Your task to perform on an android device: toggle javascript in the chrome app Image 0: 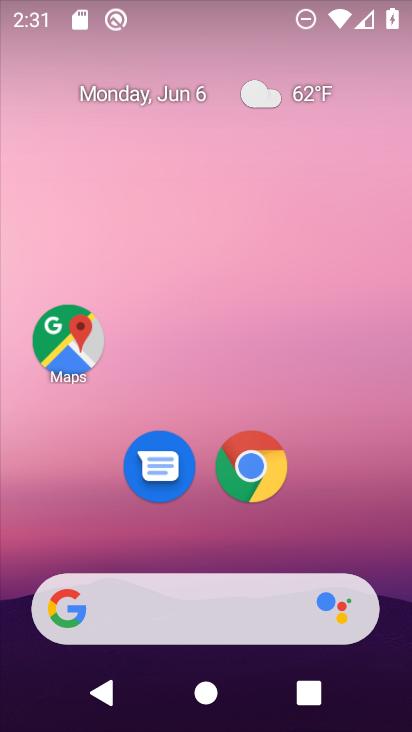
Step 0: click (244, 471)
Your task to perform on an android device: toggle javascript in the chrome app Image 1: 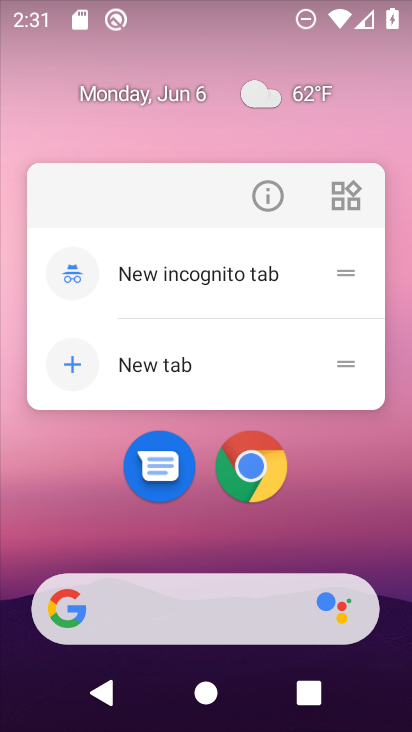
Step 1: click (250, 483)
Your task to perform on an android device: toggle javascript in the chrome app Image 2: 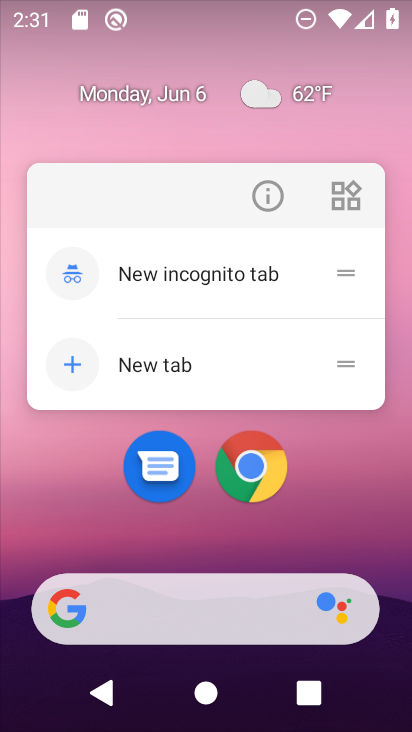
Step 2: click (257, 476)
Your task to perform on an android device: toggle javascript in the chrome app Image 3: 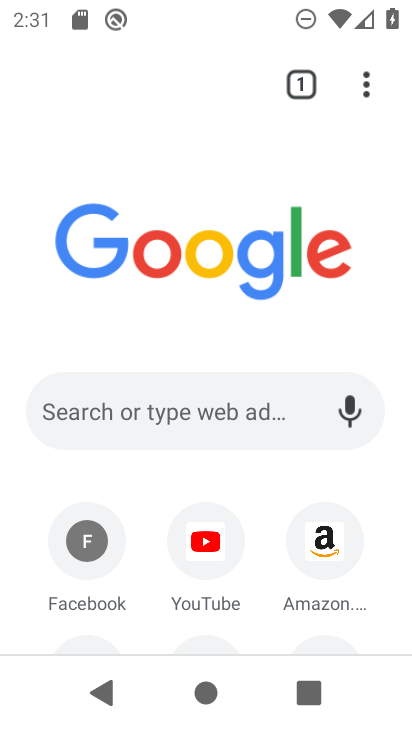
Step 3: click (369, 90)
Your task to perform on an android device: toggle javascript in the chrome app Image 4: 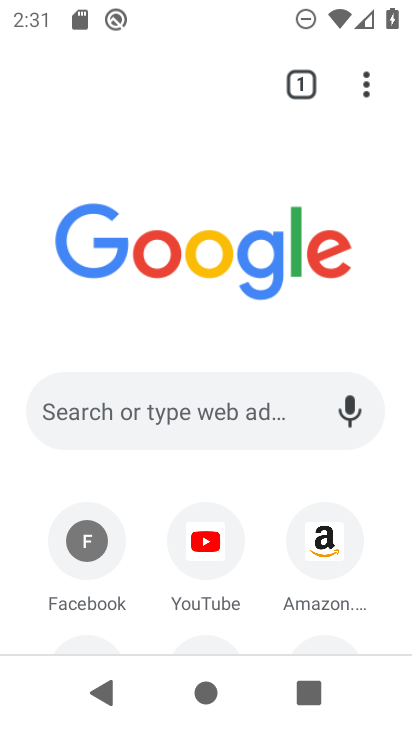
Step 4: click (366, 86)
Your task to perform on an android device: toggle javascript in the chrome app Image 5: 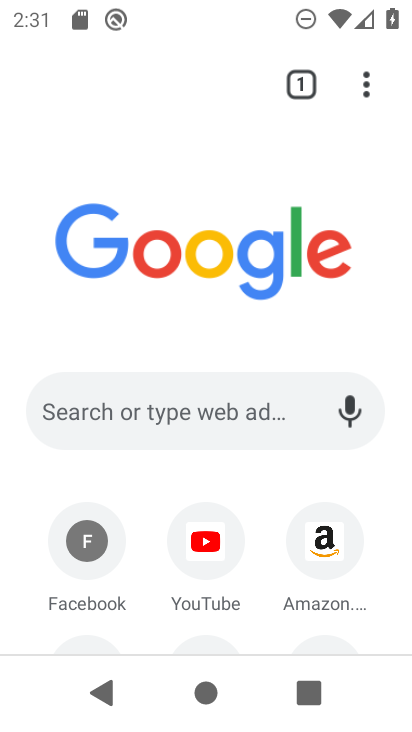
Step 5: click (369, 87)
Your task to perform on an android device: toggle javascript in the chrome app Image 6: 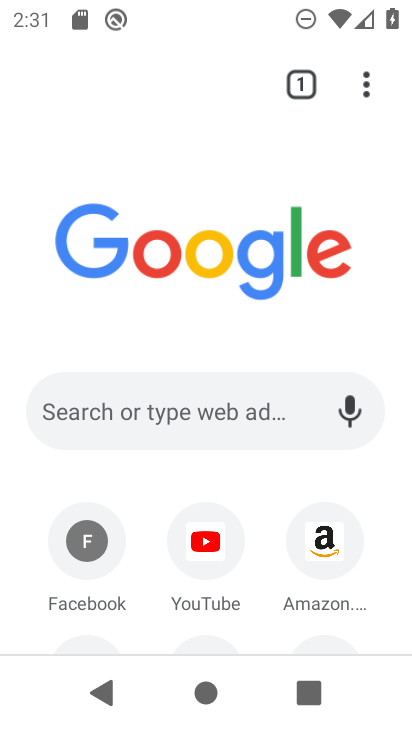
Step 6: click (368, 85)
Your task to perform on an android device: toggle javascript in the chrome app Image 7: 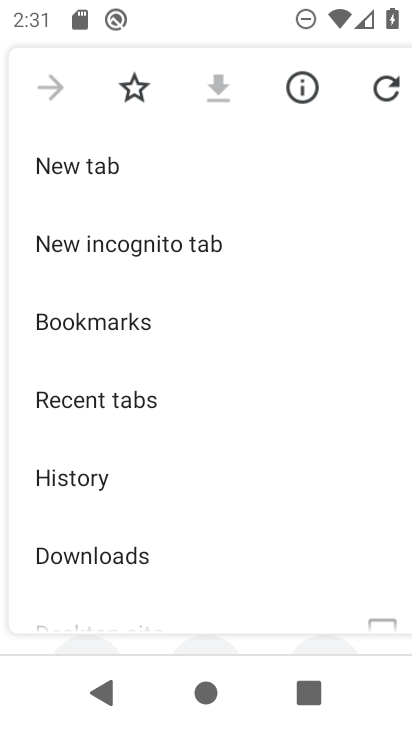
Step 7: drag from (145, 515) to (132, 162)
Your task to perform on an android device: toggle javascript in the chrome app Image 8: 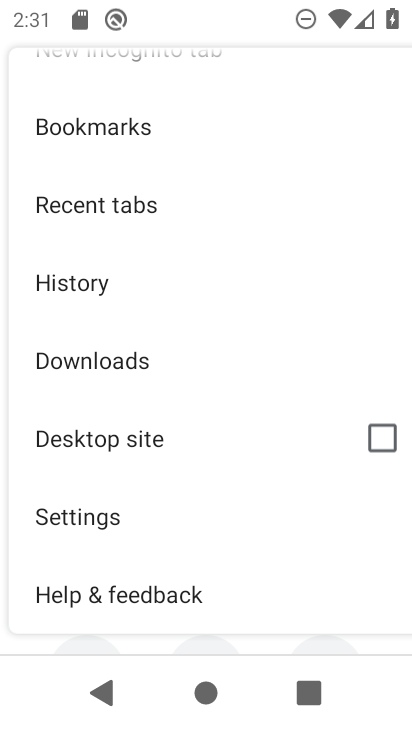
Step 8: click (72, 517)
Your task to perform on an android device: toggle javascript in the chrome app Image 9: 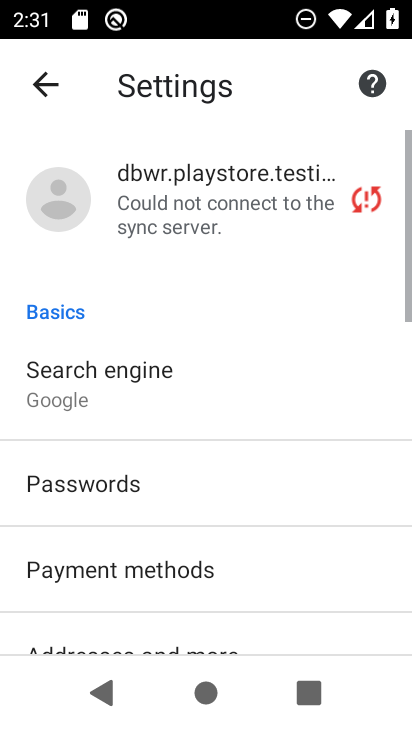
Step 9: drag from (160, 588) to (165, 401)
Your task to perform on an android device: toggle javascript in the chrome app Image 10: 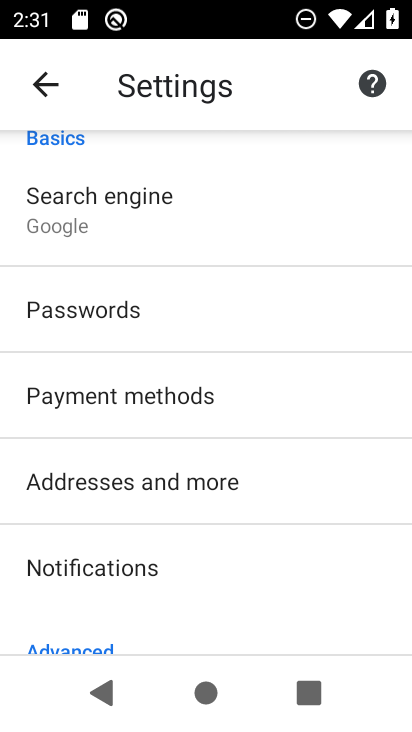
Step 10: drag from (186, 610) to (172, 395)
Your task to perform on an android device: toggle javascript in the chrome app Image 11: 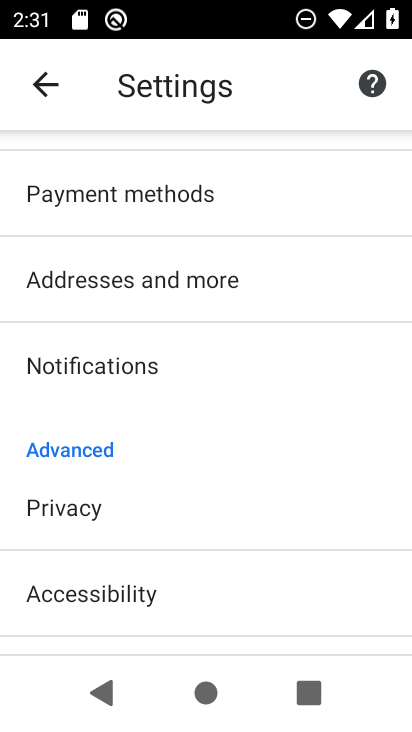
Step 11: drag from (166, 570) to (169, 320)
Your task to perform on an android device: toggle javascript in the chrome app Image 12: 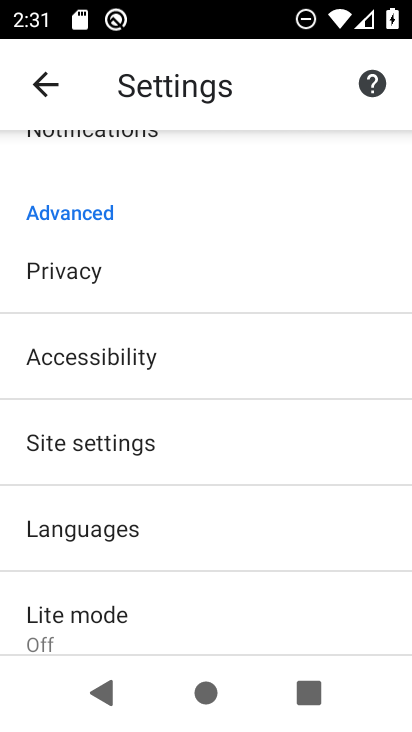
Step 12: click (116, 442)
Your task to perform on an android device: toggle javascript in the chrome app Image 13: 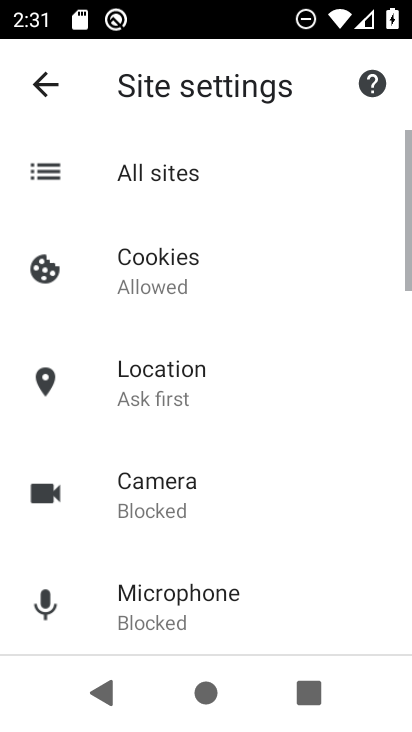
Step 13: drag from (177, 558) to (206, 321)
Your task to perform on an android device: toggle javascript in the chrome app Image 14: 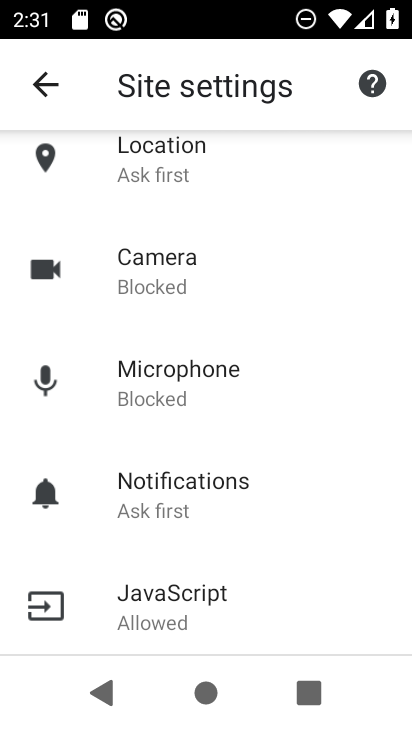
Step 14: drag from (221, 597) to (210, 342)
Your task to perform on an android device: toggle javascript in the chrome app Image 15: 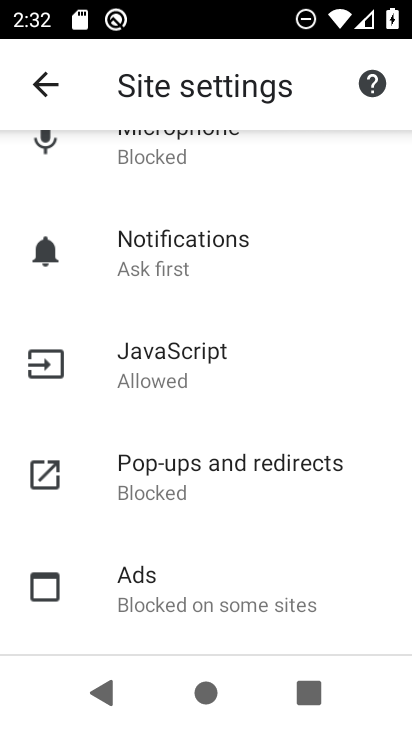
Step 15: click (189, 374)
Your task to perform on an android device: toggle javascript in the chrome app Image 16: 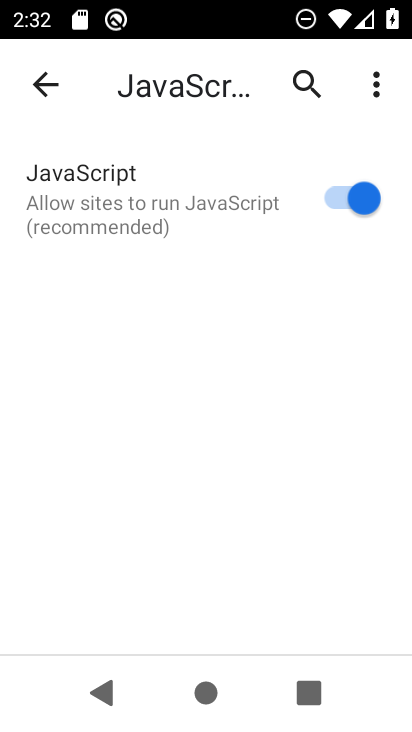
Step 16: click (324, 199)
Your task to perform on an android device: toggle javascript in the chrome app Image 17: 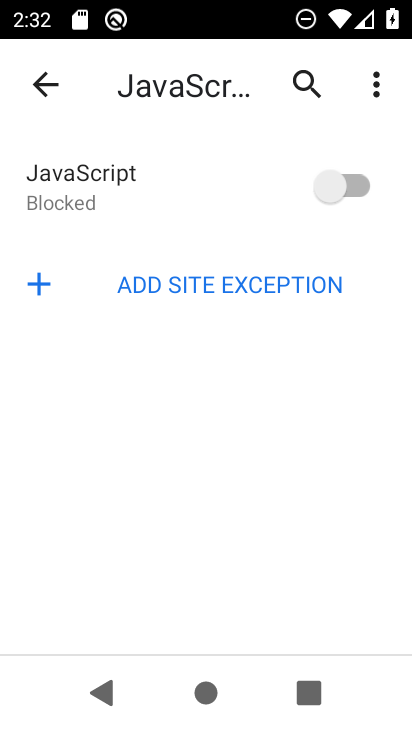
Step 17: task complete